Your task to perform on an android device: turn on javascript in the chrome app Image 0: 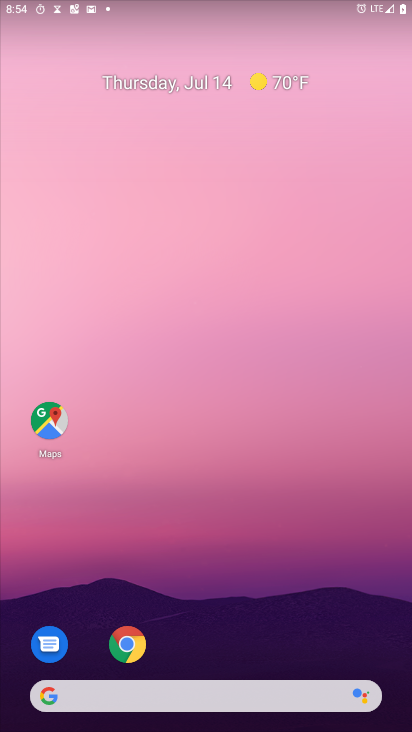
Step 0: click (133, 634)
Your task to perform on an android device: turn on javascript in the chrome app Image 1: 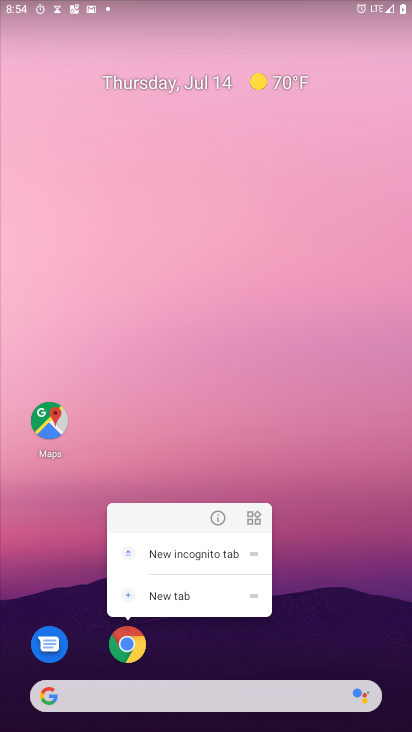
Step 1: click (126, 649)
Your task to perform on an android device: turn on javascript in the chrome app Image 2: 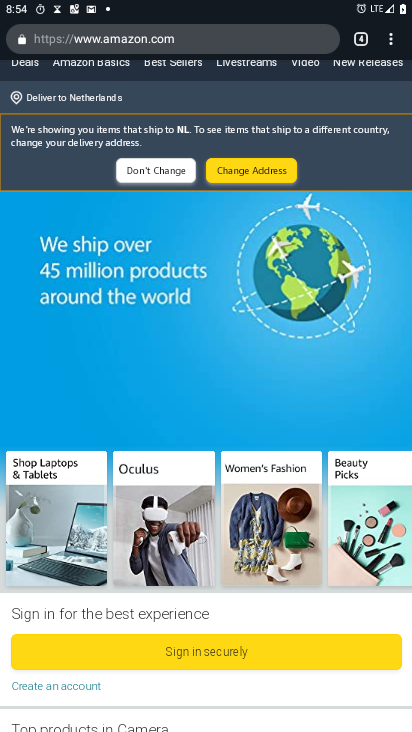
Step 2: drag from (394, 35) to (261, 507)
Your task to perform on an android device: turn on javascript in the chrome app Image 3: 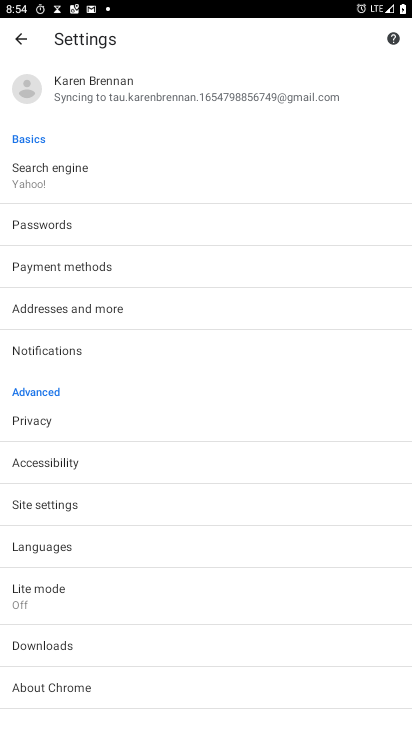
Step 3: click (58, 502)
Your task to perform on an android device: turn on javascript in the chrome app Image 4: 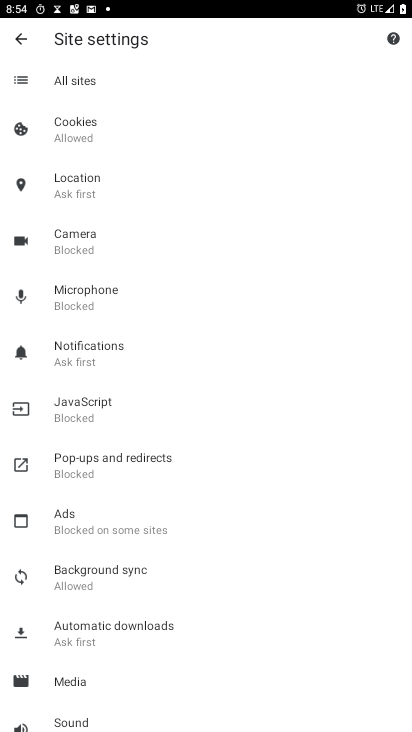
Step 4: click (88, 407)
Your task to perform on an android device: turn on javascript in the chrome app Image 5: 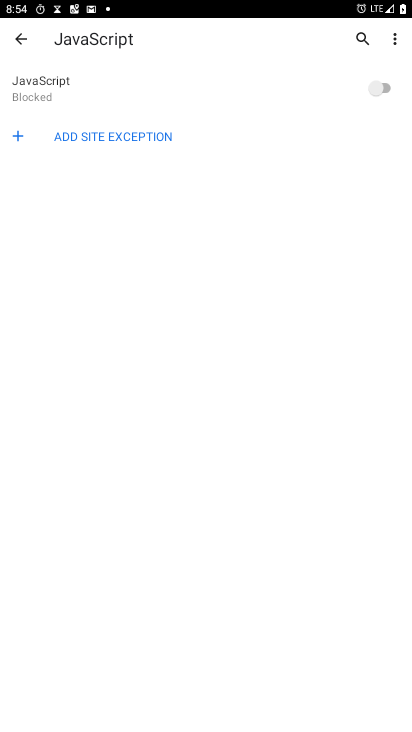
Step 5: click (381, 86)
Your task to perform on an android device: turn on javascript in the chrome app Image 6: 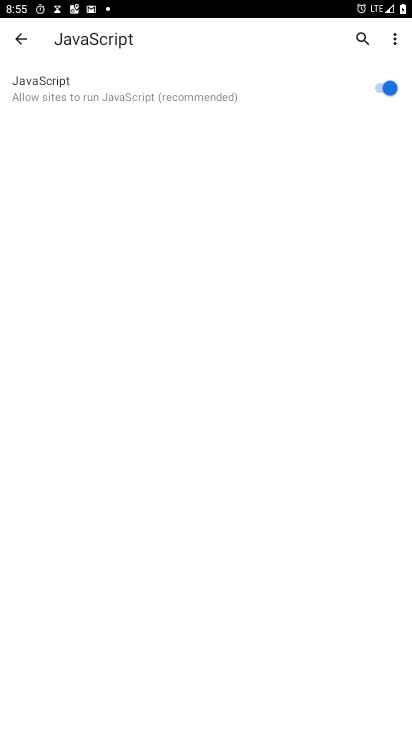
Step 6: task complete